Your task to perform on an android device: turn on notifications settings in the gmail app Image 0: 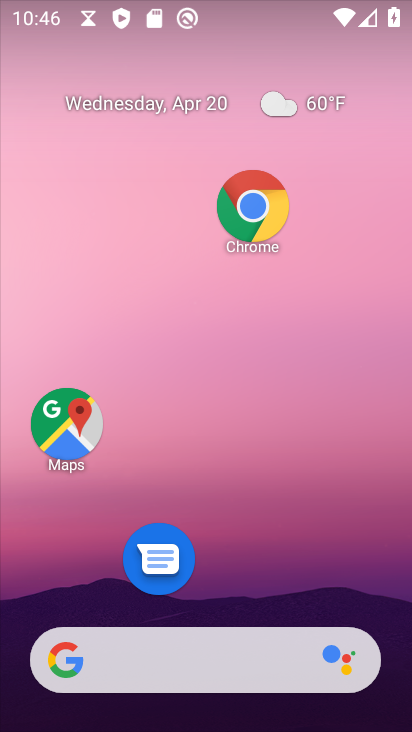
Step 0: drag from (208, 609) to (278, 1)
Your task to perform on an android device: turn on notifications settings in the gmail app Image 1: 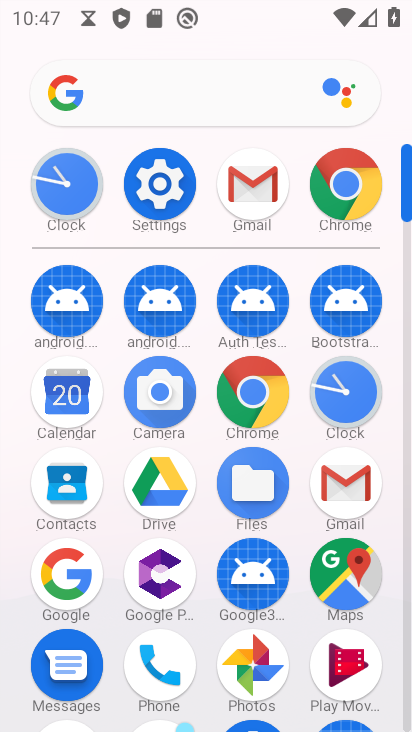
Step 1: click (334, 497)
Your task to perform on an android device: turn on notifications settings in the gmail app Image 2: 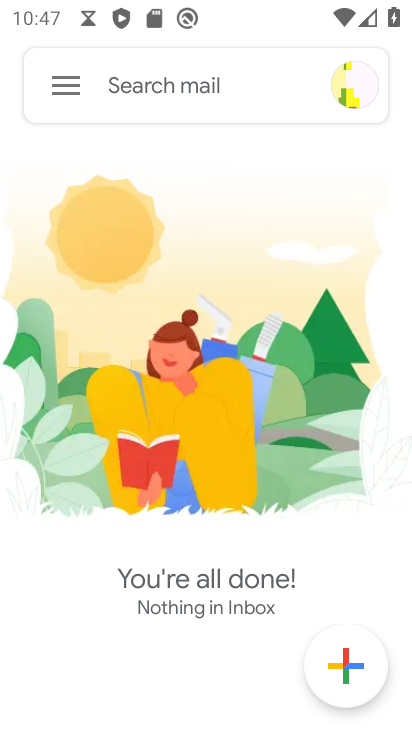
Step 2: click (70, 92)
Your task to perform on an android device: turn on notifications settings in the gmail app Image 3: 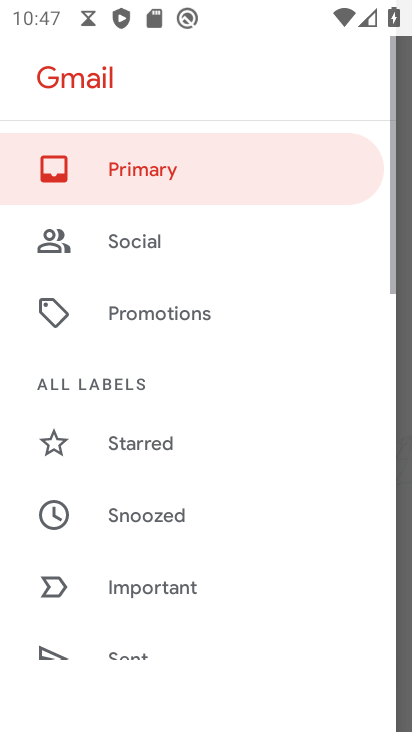
Step 3: drag from (213, 657) to (289, 94)
Your task to perform on an android device: turn on notifications settings in the gmail app Image 4: 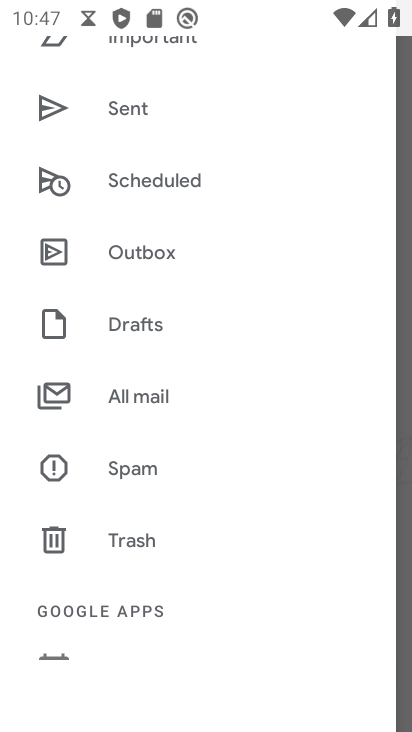
Step 4: drag from (250, 594) to (270, 154)
Your task to perform on an android device: turn on notifications settings in the gmail app Image 5: 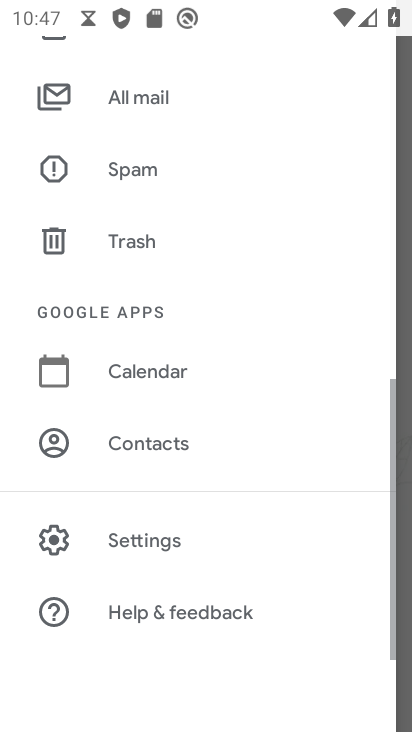
Step 5: click (177, 549)
Your task to perform on an android device: turn on notifications settings in the gmail app Image 6: 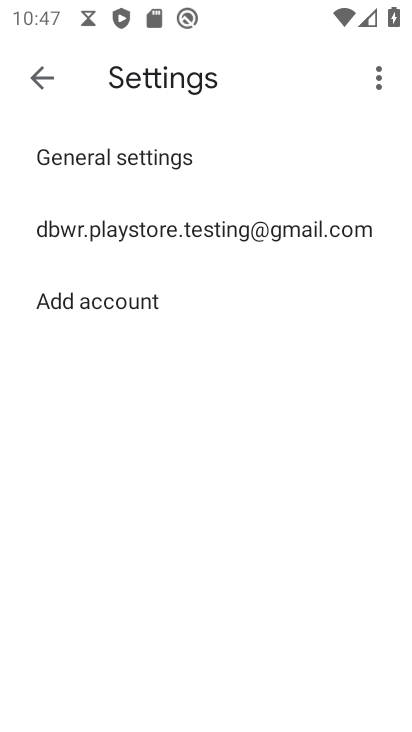
Step 6: click (119, 241)
Your task to perform on an android device: turn on notifications settings in the gmail app Image 7: 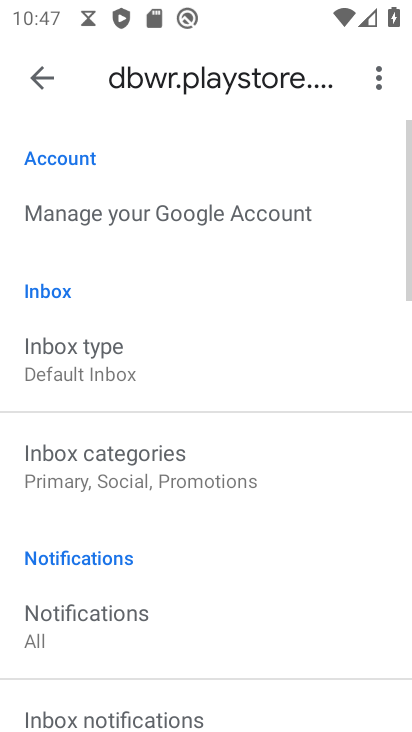
Step 7: drag from (170, 697) to (226, 174)
Your task to perform on an android device: turn on notifications settings in the gmail app Image 8: 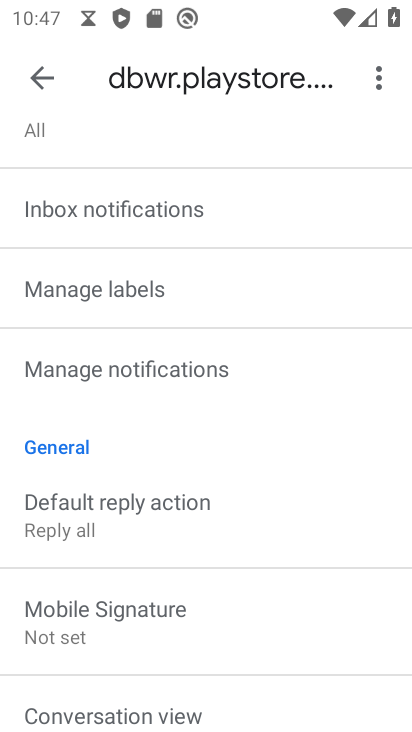
Step 8: click (172, 356)
Your task to perform on an android device: turn on notifications settings in the gmail app Image 9: 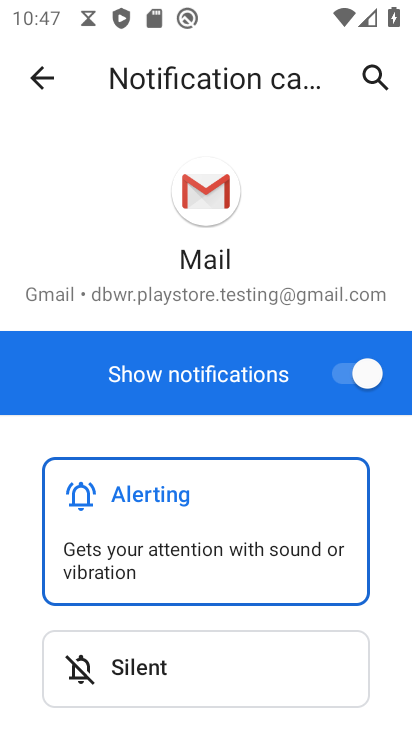
Step 9: task complete